Your task to perform on an android device: toggle data saver in the chrome app Image 0: 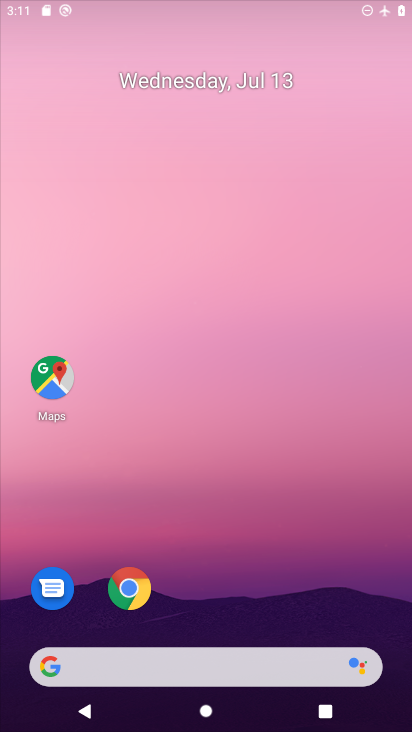
Step 0: drag from (192, 622) to (162, 156)
Your task to perform on an android device: toggle data saver in the chrome app Image 1: 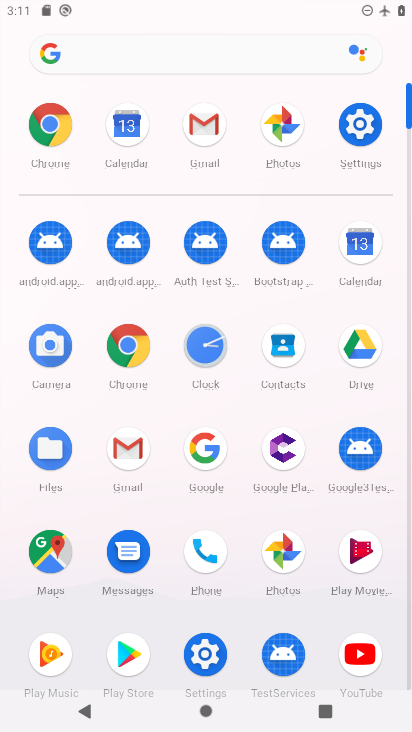
Step 1: click (138, 357)
Your task to perform on an android device: toggle data saver in the chrome app Image 2: 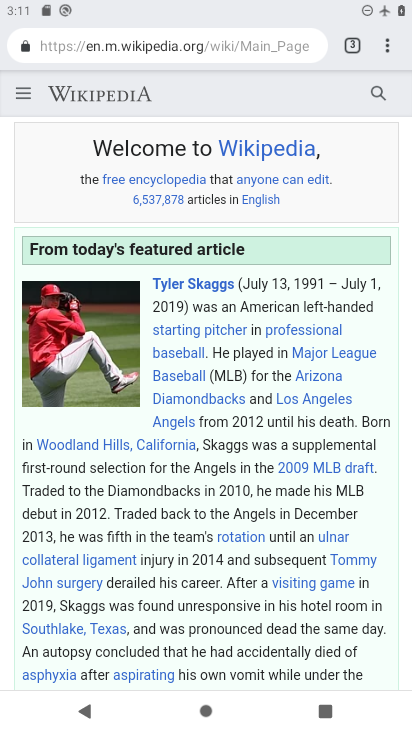
Step 2: drag from (386, 42) to (227, 496)
Your task to perform on an android device: toggle data saver in the chrome app Image 3: 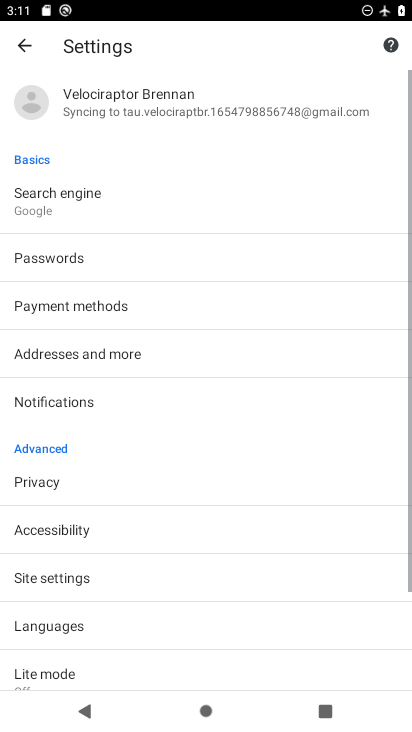
Step 3: drag from (182, 600) to (167, 336)
Your task to perform on an android device: toggle data saver in the chrome app Image 4: 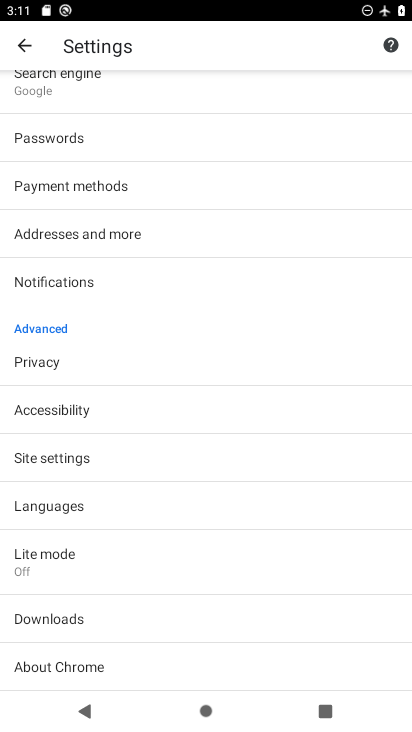
Step 4: click (63, 562)
Your task to perform on an android device: toggle data saver in the chrome app Image 5: 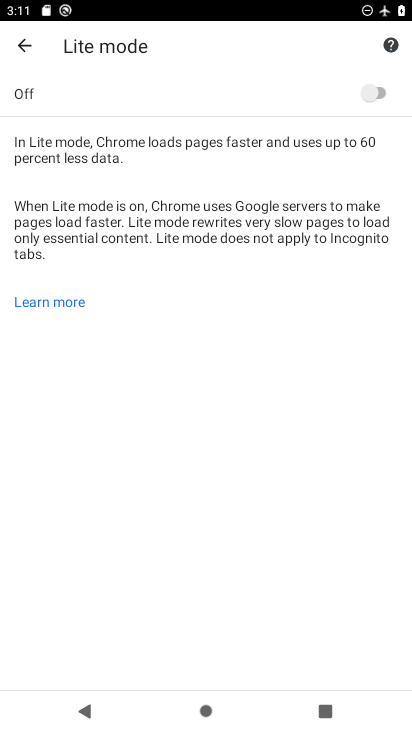
Step 5: click (367, 100)
Your task to perform on an android device: toggle data saver in the chrome app Image 6: 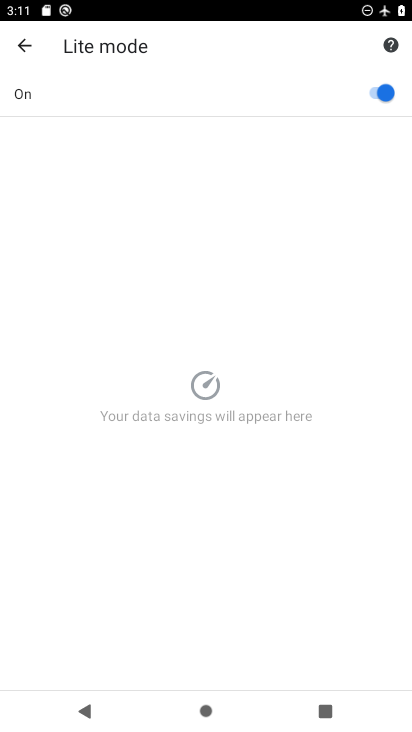
Step 6: task complete